Your task to perform on an android device: check storage Image 0: 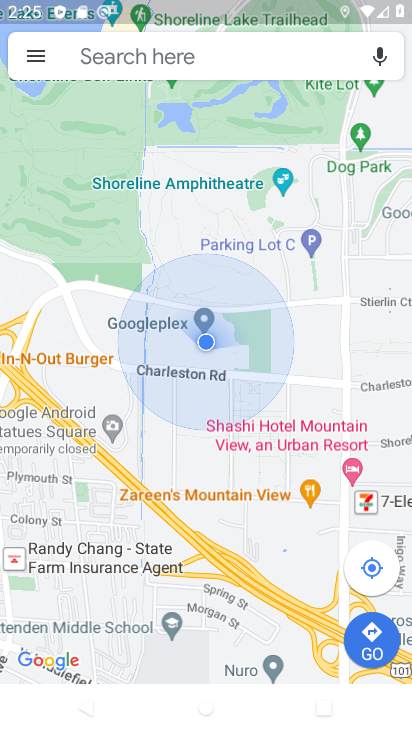
Step 0: press home button
Your task to perform on an android device: check storage Image 1: 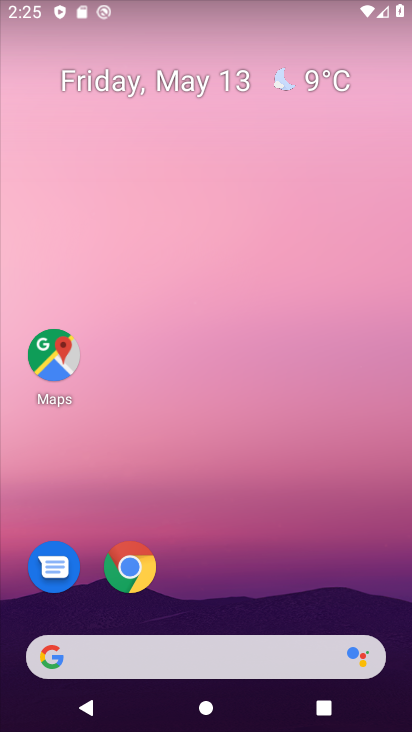
Step 1: drag from (288, 606) to (299, 6)
Your task to perform on an android device: check storage Image 2: 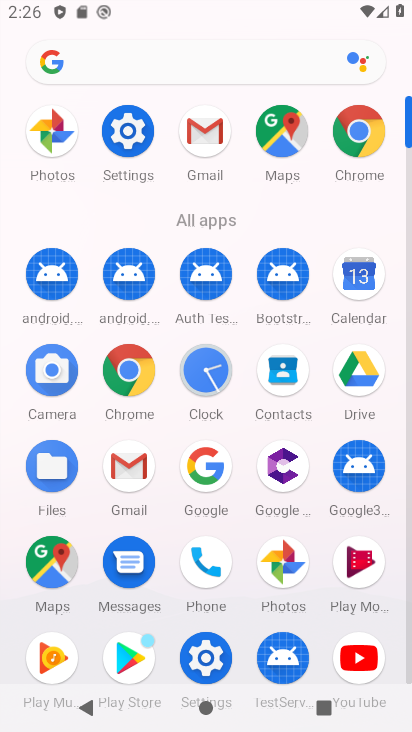
Step 2: click (124, 127)
Your task to perform on an android device: check storage Image 3: 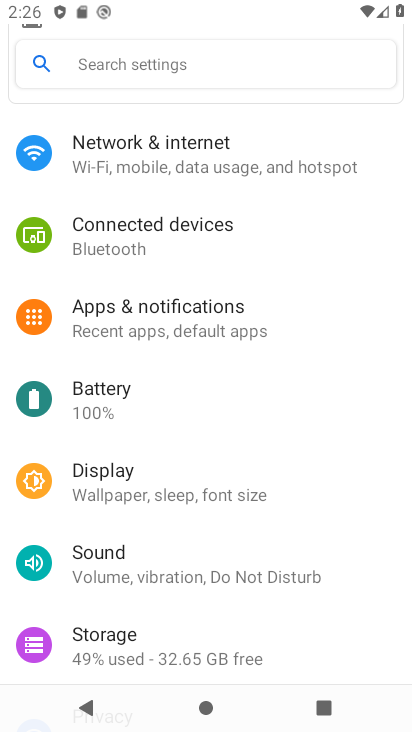
Step 3: click (109, 644)
Your task to perform on an android device: check storage Image 4: 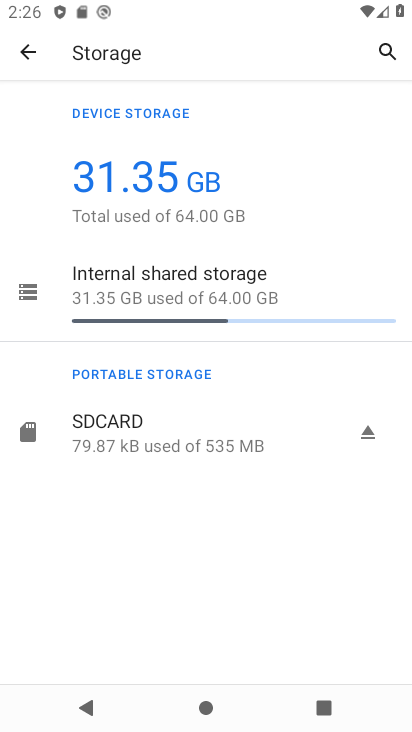
Step 4: click (143, 297)
Your task to perform on an android device: check storage Image 5: 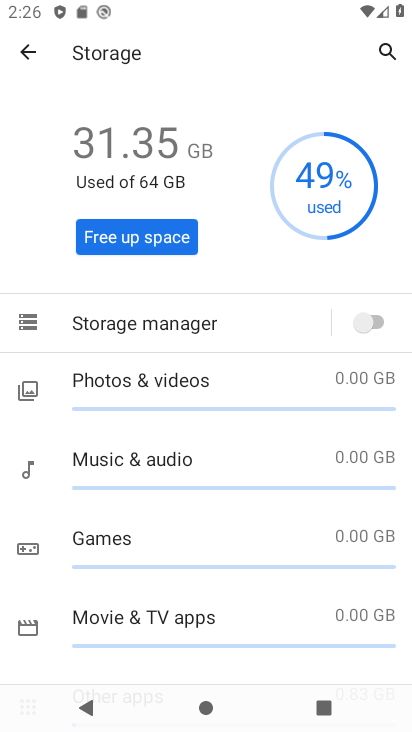
Step 5: task complete